Your task to perform on an android device: Open the stopwatch Image 0: 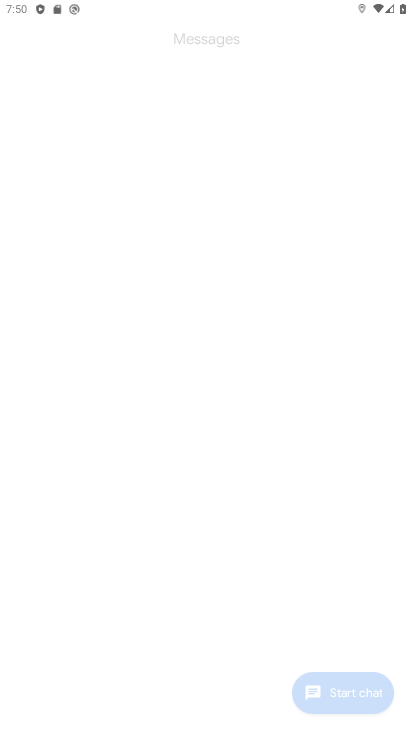
Step 0: click (129, 650)
Your task to perform on an android device: Open the stopwatch Image 1: 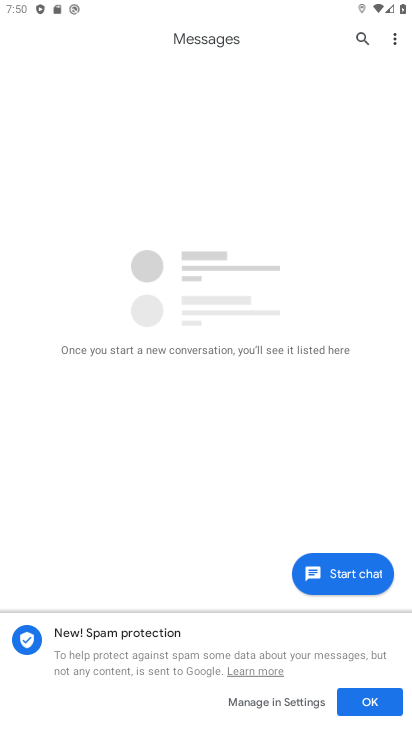
Step 1: press home button
Your task to perform on an android device: Open the stopwatch Image 2: 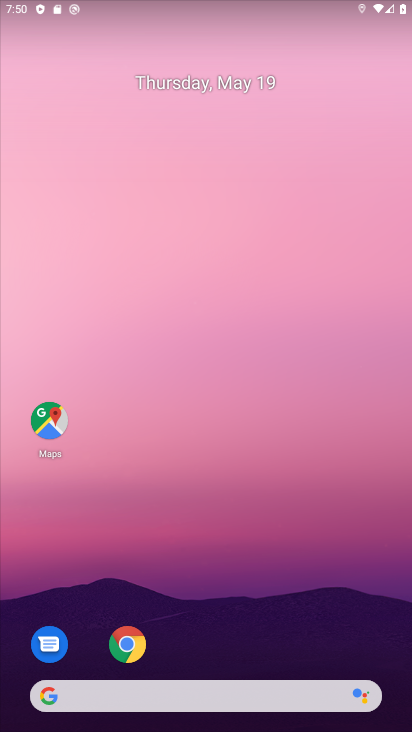
Step 2: drag from (276, 686) to (278, 205)
Your task to perform on an android device: Open the stopwatch Image 3: 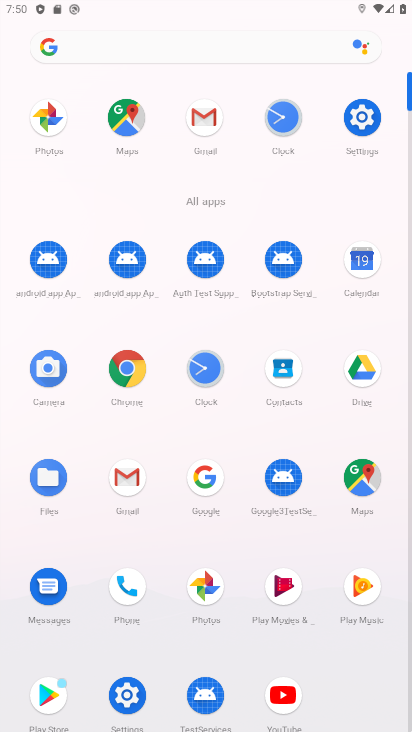
Step 3: click (275, 126)
Your task to perform on an android device: Open the stopwatch Image 4: 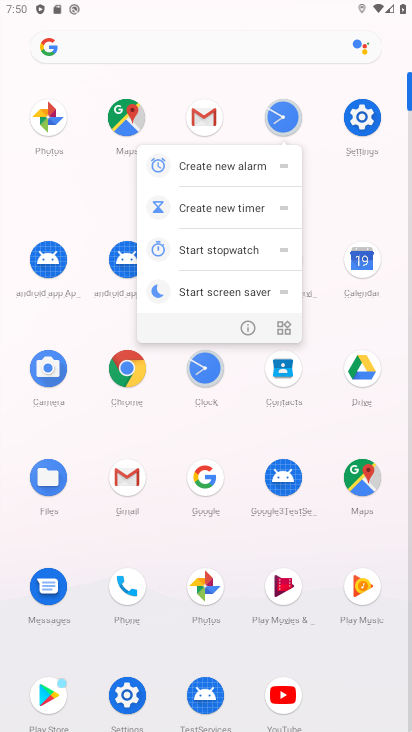
Step 4: click (292, 115)
Your task to perform on an android device: Open the stopwatch Image 5: 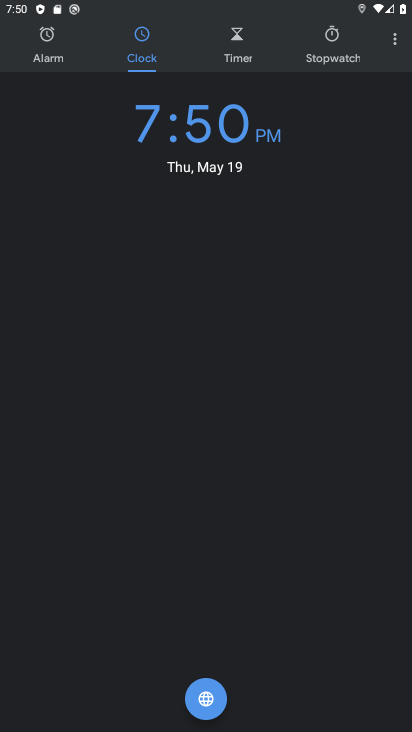
Step 5: click (320, 40)
Your task to perform on an android device: Open the stopwatch Image 6: 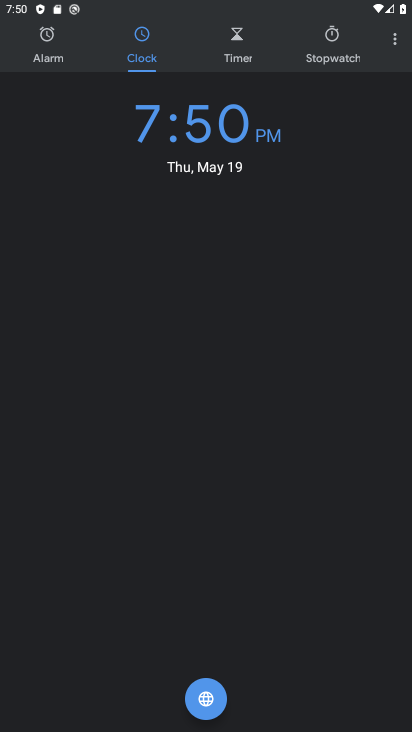
Step 6: click (334, 50)
Your task to perform on an android device: Open the stopwatch Image 7: 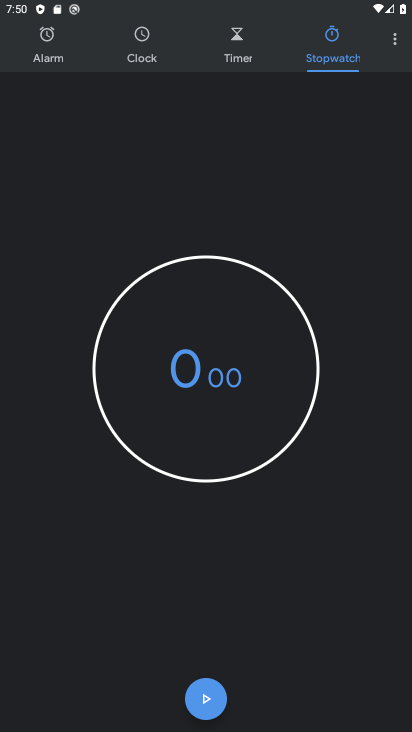
Step 7: task complete